Your task to perform on an android device: delete location history Image 0: 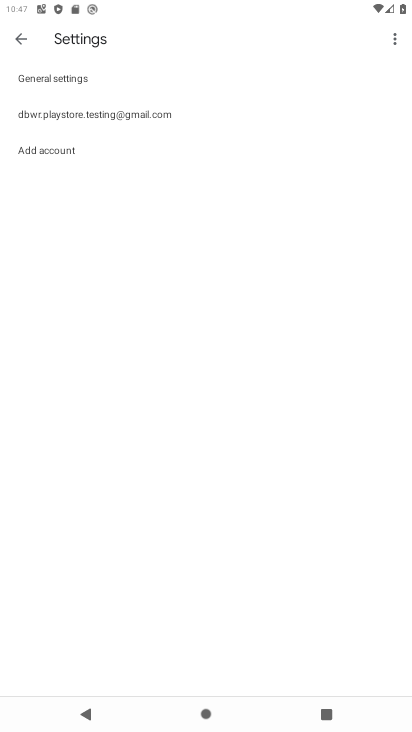
Step 0: press back button
Your task to perform on an android device: delete location history Image 1: 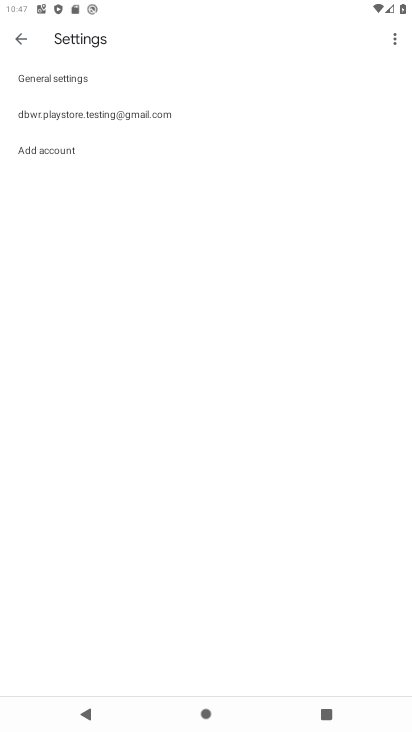
Step 1: press home button
Your task to perform on an android device: delete location history Image 2: 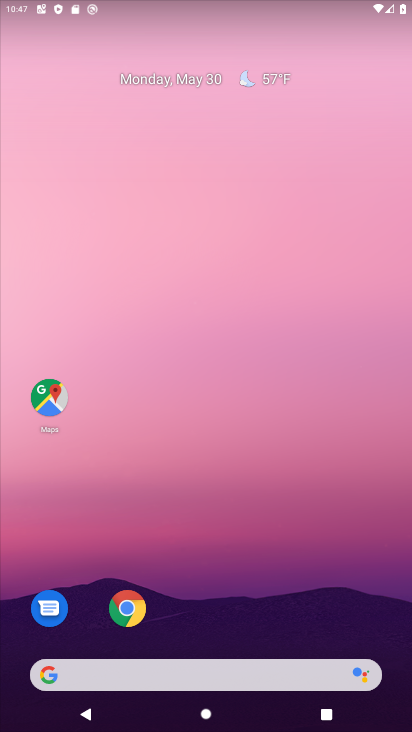
Step 2: drag from (248, 571) to (221, 32)
Your task to perform on an android device: delete location history Image 3: 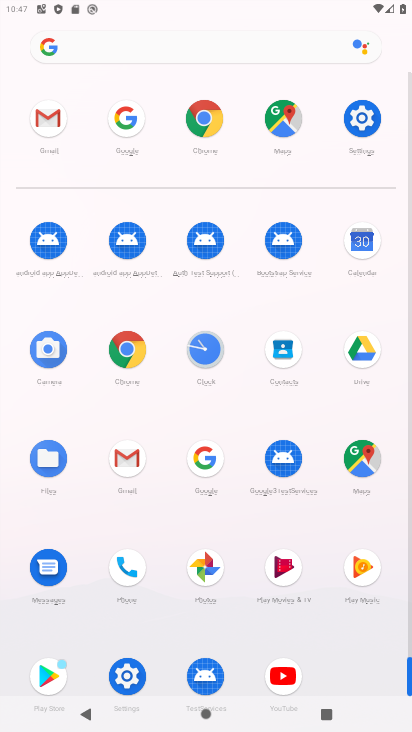
Step 3: click (122, 673)
Your task to perform on an android device: delete location history Image 4: 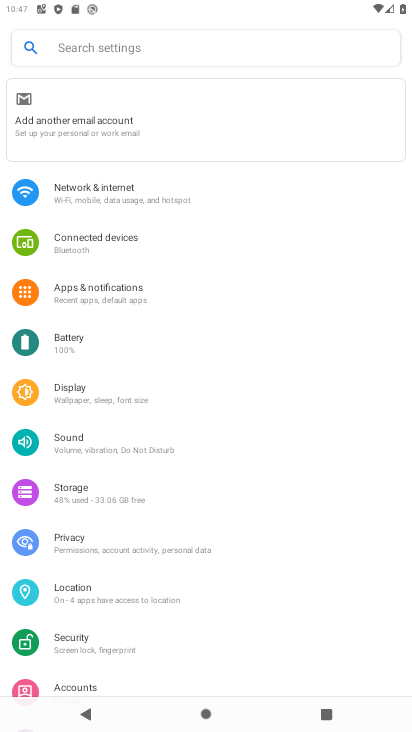
Step 4: click (90, 595)
Your task to perform on an android device: delete location history Image 5: 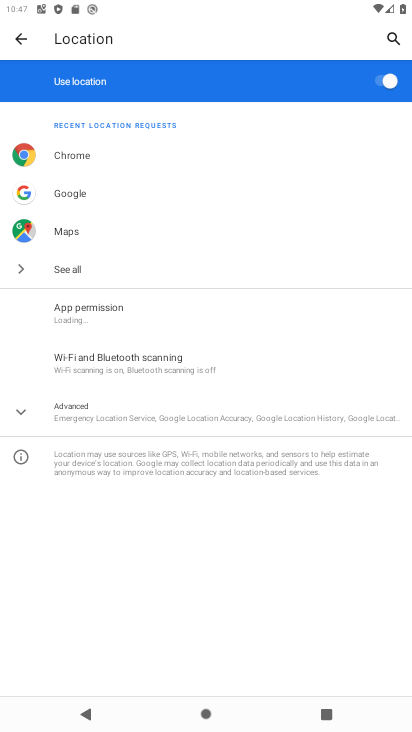
Step 5: click (22, 411)
Your task to perform on an android device: delete location history Image 6: 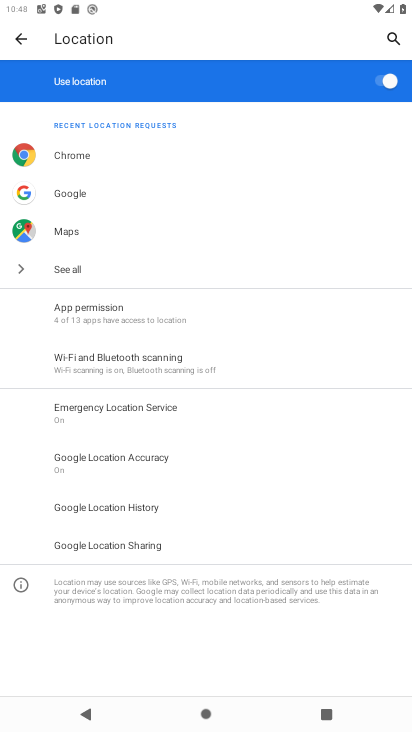
Step 6: click (140, 503)
Your task to perform on an android device: delete location history Image 7: 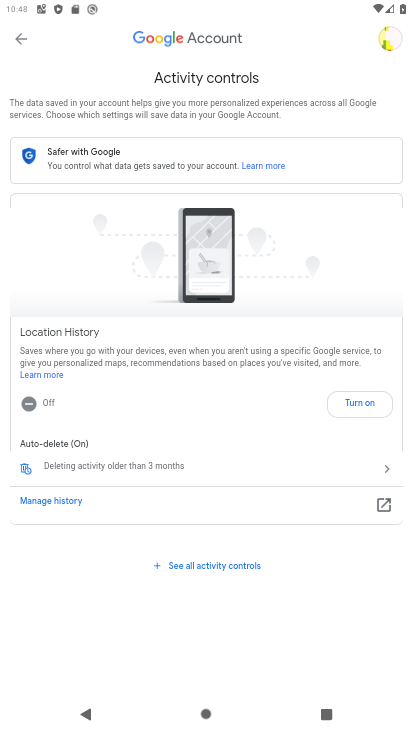
Step 7: click (56, 458)
Your task to perform on an android device: delete location history Image 8: 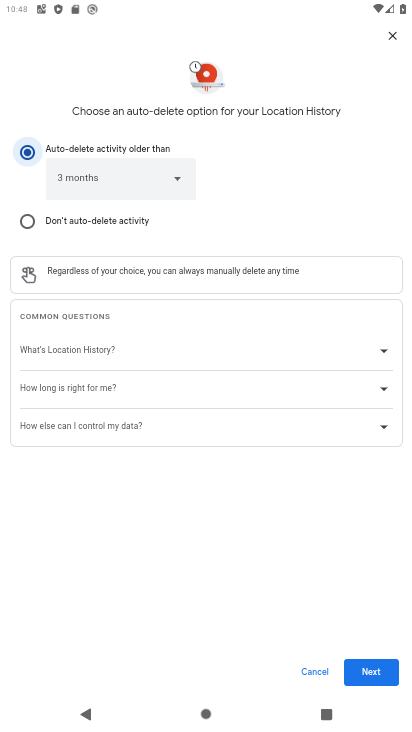
Step 8: click (358, 680)
Your task to perform on an android device: delete location history Image 9: 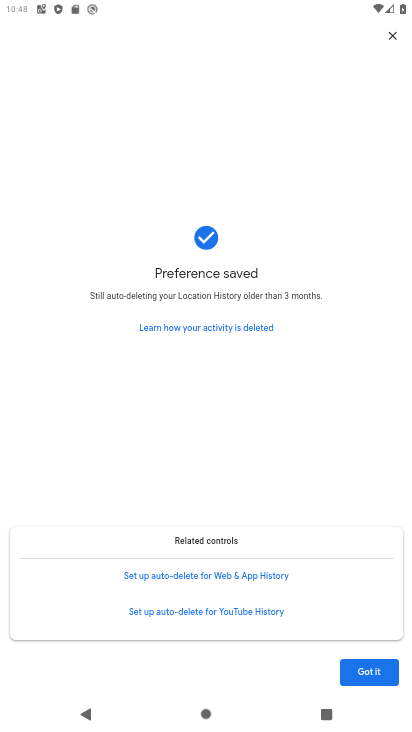
Step 9: click (356, 665)
Your task to perform on an android device: delete location history Image 10: 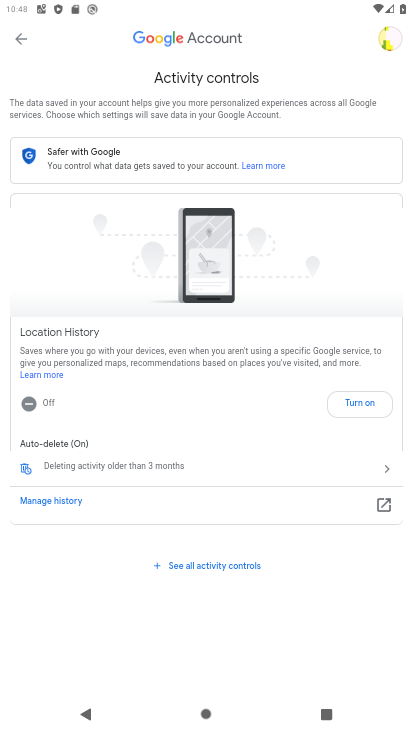
Step 10: task complete